Your task to perform on an android device: Search for "acer nitro" on walmart, select the first entry, and add it to the cart. Image 0: 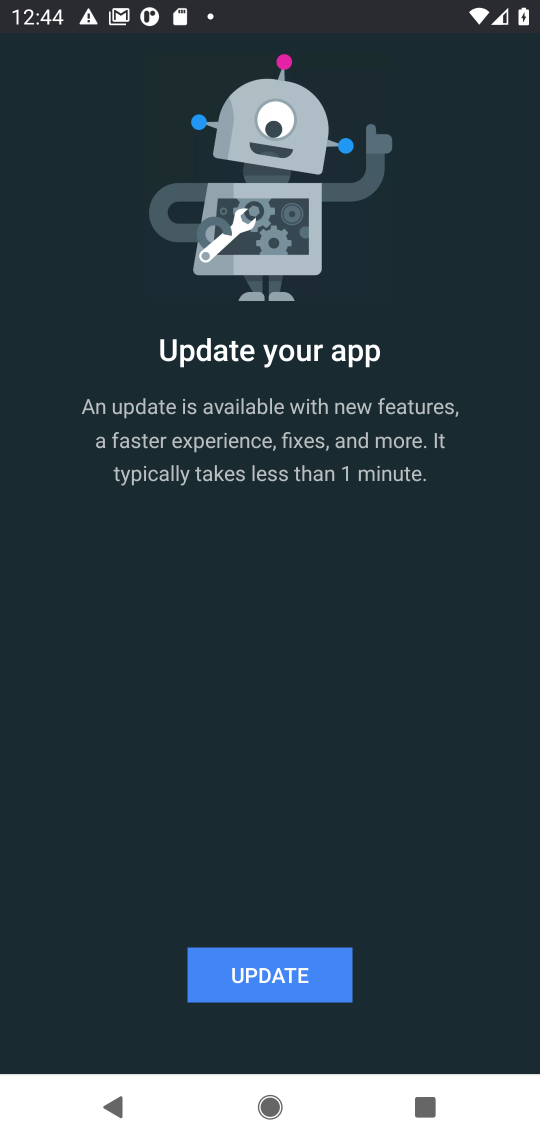
Step 0: press home button
Your task to perform on an android device: Search for "acer nitro" on walmart, select the first entry, and add it to the cart. Image 1: 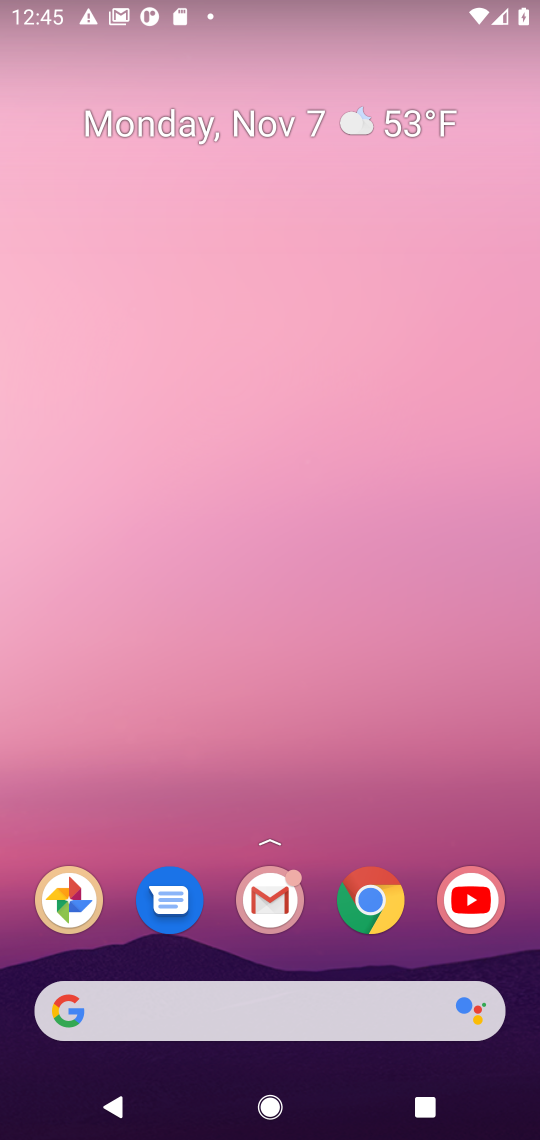
Step 1: click (301, 1022)
Your task to perform on an android device: Search for "acer nitro" on walmart, select the first entry, and add it to the cart. Image 2: 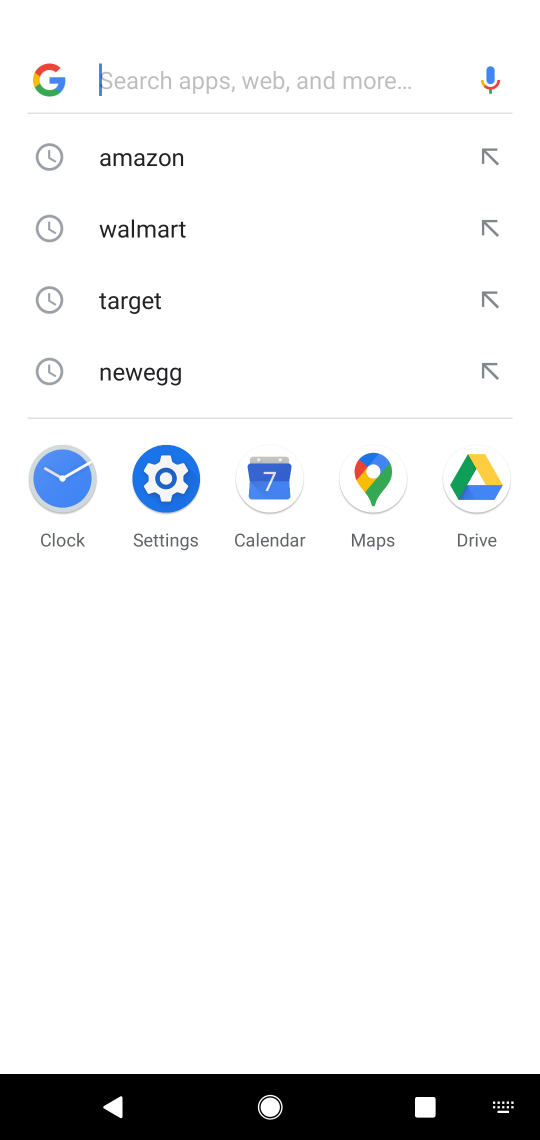
Step 2: type "walmart"
Your task to perform on an android device: Search for "acer nitro" on walmart, select the first entry, and add it to the cart. Image 3: 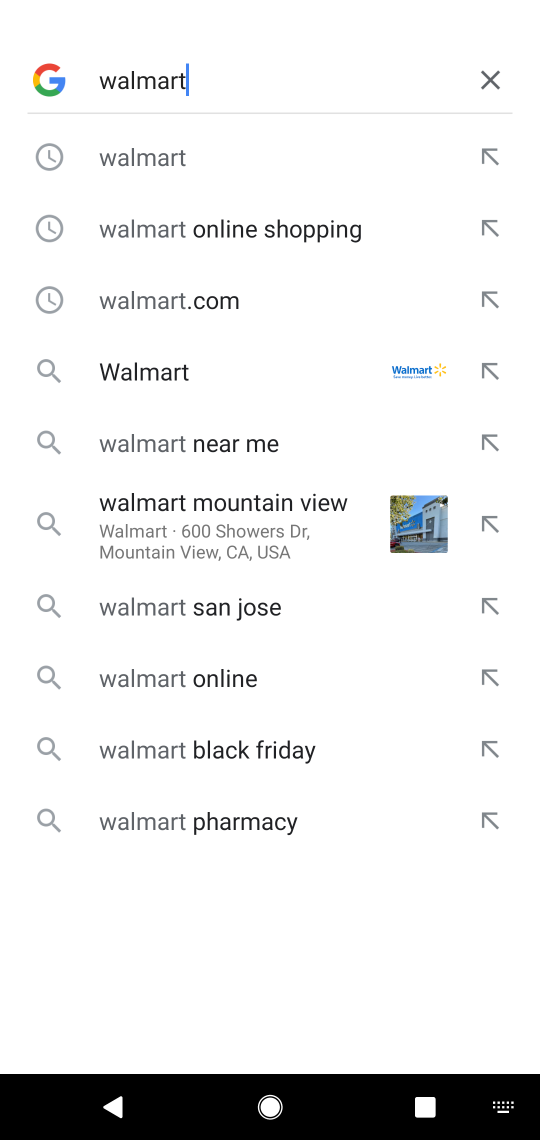
Step 3: click (151, 167)
Your task to perform on an android device: Search for "acer nitro" on walmart, select the first entry, and add it to the cart. Image 4: 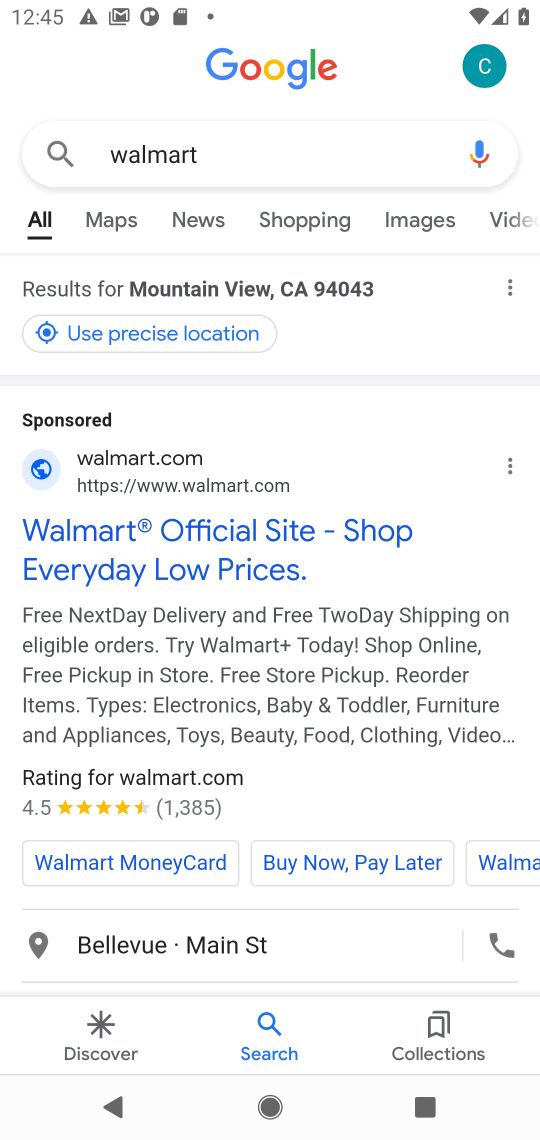
Step 4: click (77, 558)
Your task to perform on an android device: Search for "acer nitro" on walmart, select the first entry, and add it to the cart. Image 5: 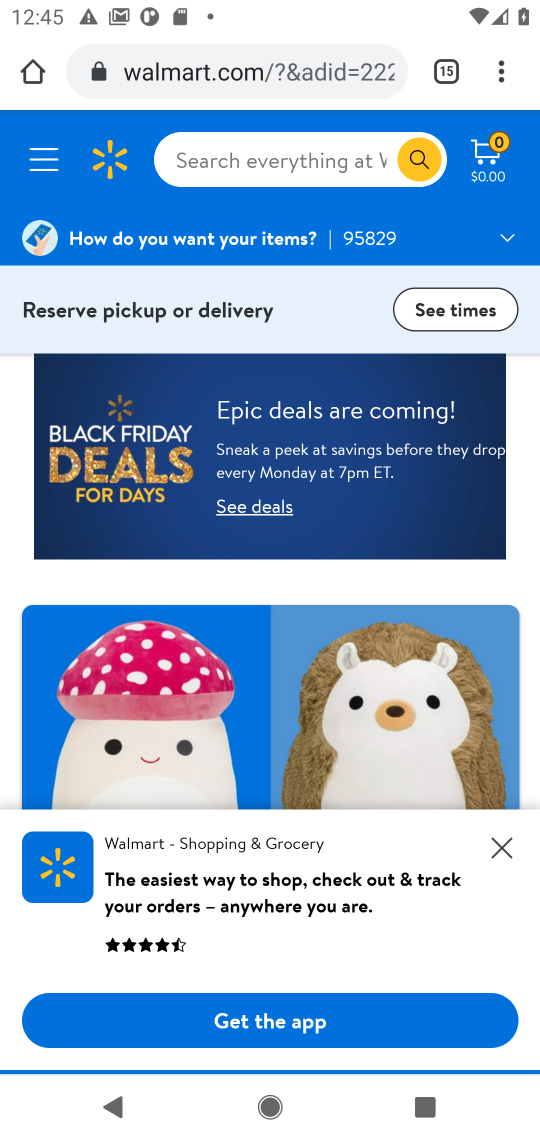
Step 5: click (518, 861)
Your task to perform on an android device: Search for "acer nitro" on walmart, select the first entry, and add it to the cart. Image 6: 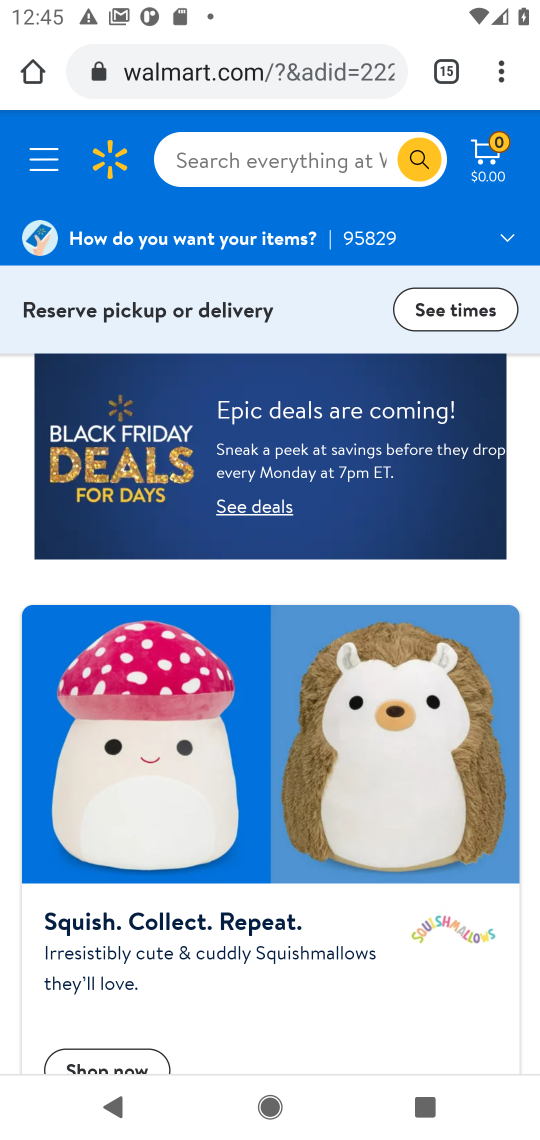
Step 6: task complete